Your task to perform on an android device: Play the last video I watched on Youtube Image 0: 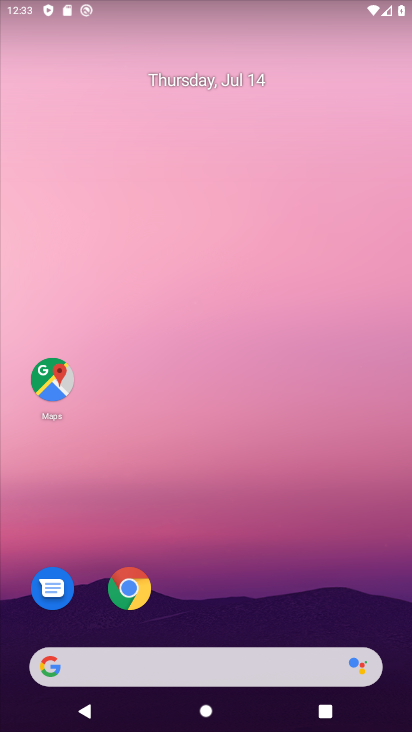
Step 0: drag from (323, 598) to (290, 236)
Your task to perform on an android device: Play the last video I watched on Youtube Image 1: 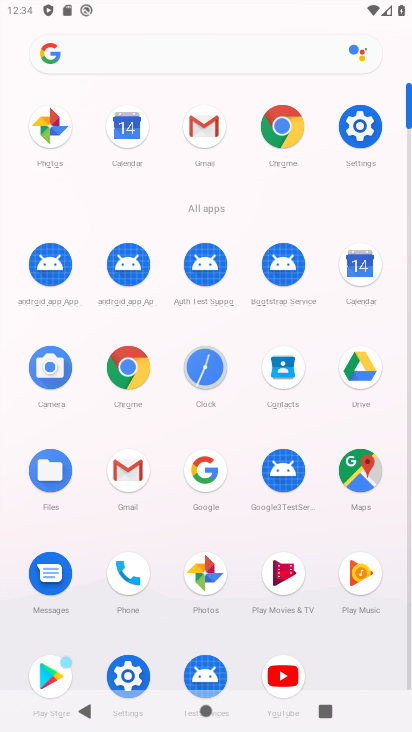
Step 1: click (288, 677)
Your task to perform on an android device: Play the last video I watched on Youtube Image 2: 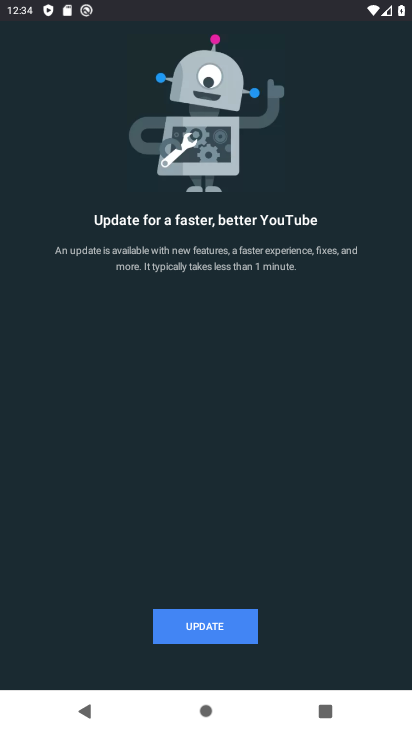
Step 2: task complete